Your task to perform on an android device: What's the weather? Image 0: 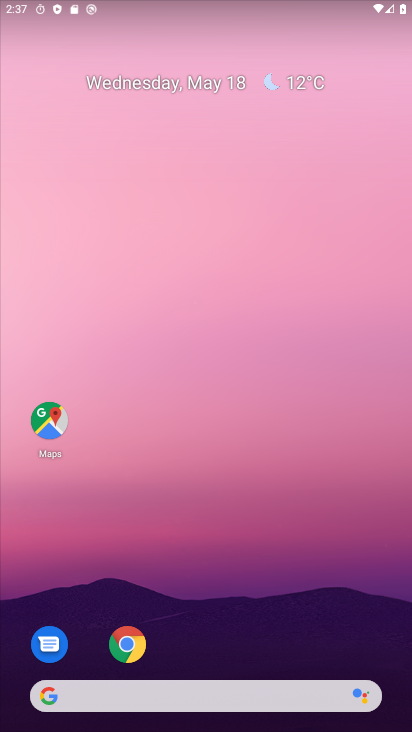
Step 0: drag from (402, 451) to (381, 292)
Your task to perform on an android device: What's the weather? Image 1: 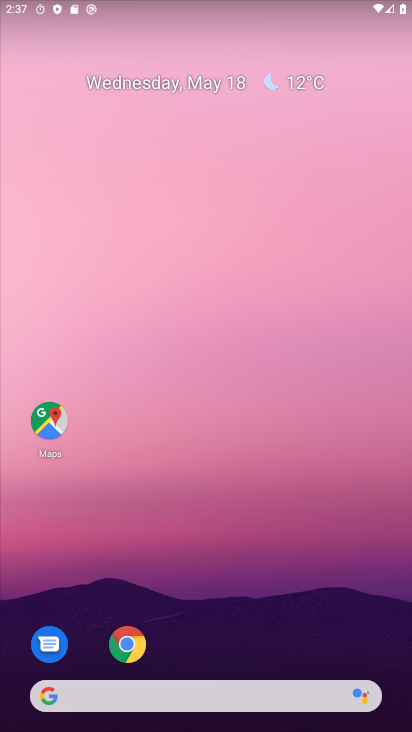
Step 1: click (318, 96)
Your task to perform on an android device: What's the weather? Image 2: 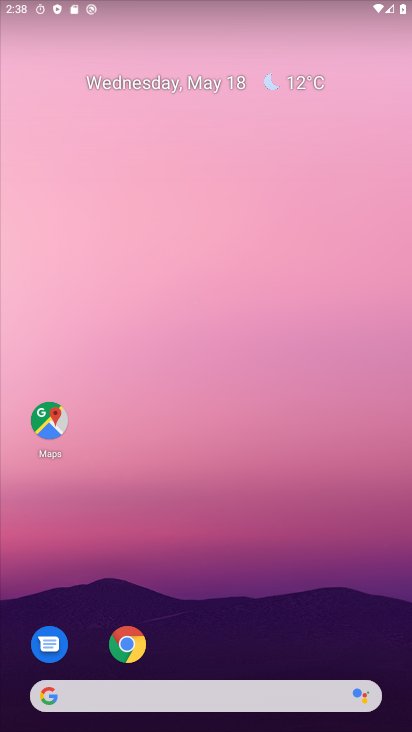
Step 2: click (306, 76)
Your task to perform on an android device: What's the weather? Image 3: 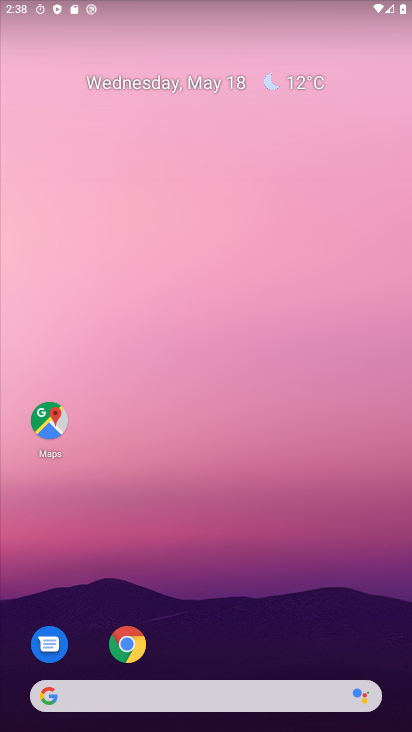
Step 3: click (298, 85)
Your task to perform on an android device: What's the weather? Image 4: 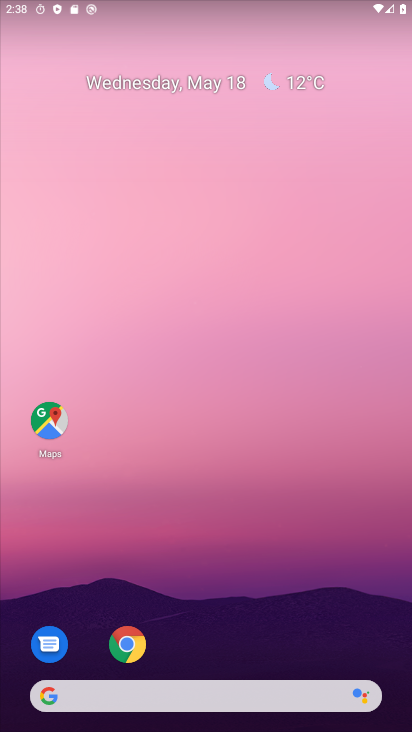
Step 4: click (296, 86)
Your task to perform on an android device: What's the weather? Image 5: 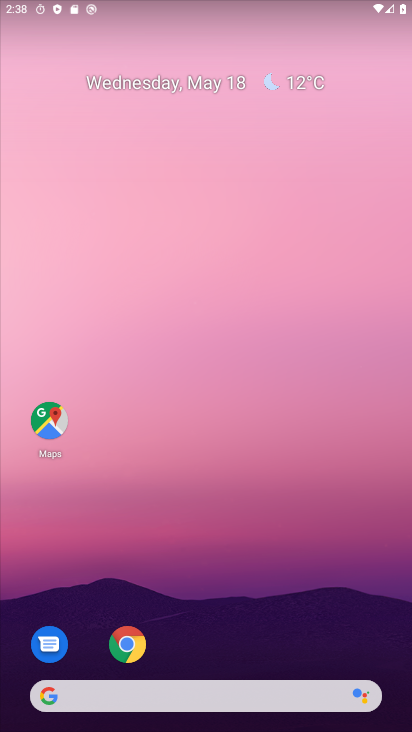
Step 5: click (299, 83)
Your task to perform on an android device: What's the weather? Image 6: 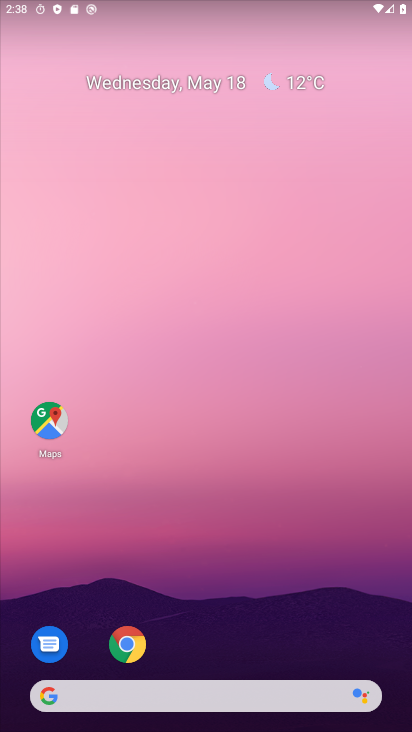
Step 6: click (294, 82)
Your task to perform on an android device: What's the weather? Image 7: 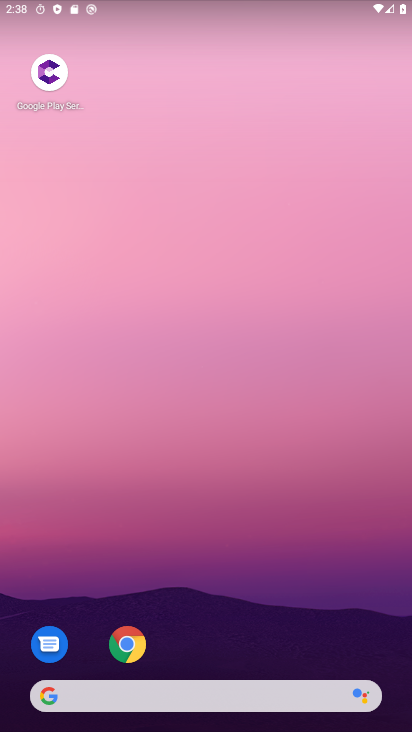
Step 7: drag from (407, 380) to (410, 416)
Your task to perform on an android device: What's the weather? Image 8: 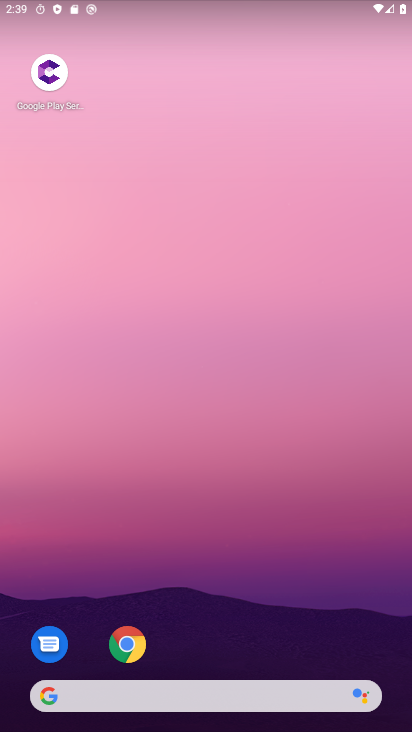
Step 8: press home button
Your task to perform on an android device: What's the weather? Image 9: 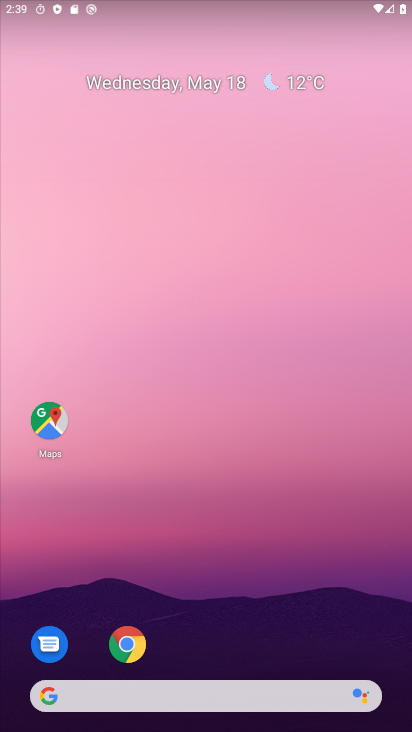
Step 9: click (293, 79)
Your task to perform on an android device: What's the weather? Image 10: 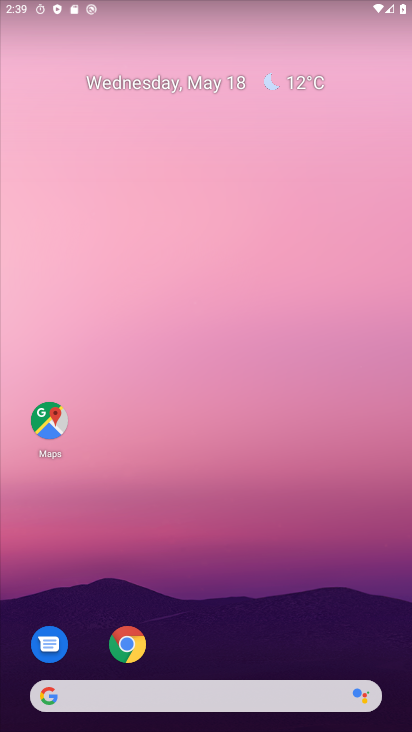
Step 10: click (295, 80)
Your task to perform on an android device: What's the weather? Image 11: 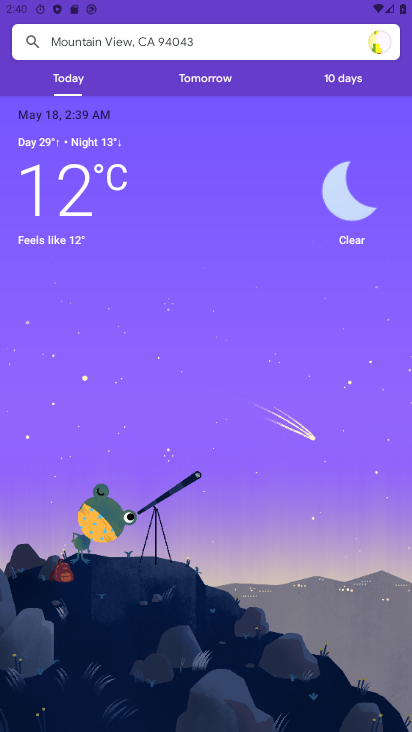
Step 11: task complete